Your task to perform on an android device: open device folders in google photos Image 0: 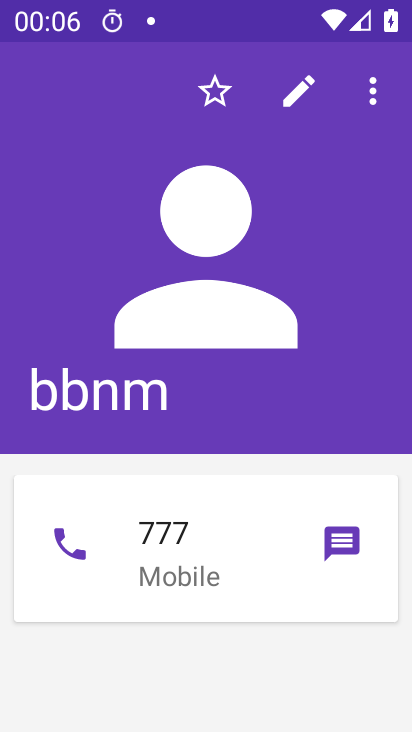
Step 0: press home button
Your task to perform on an android device: open device folders in google photos Image 1: 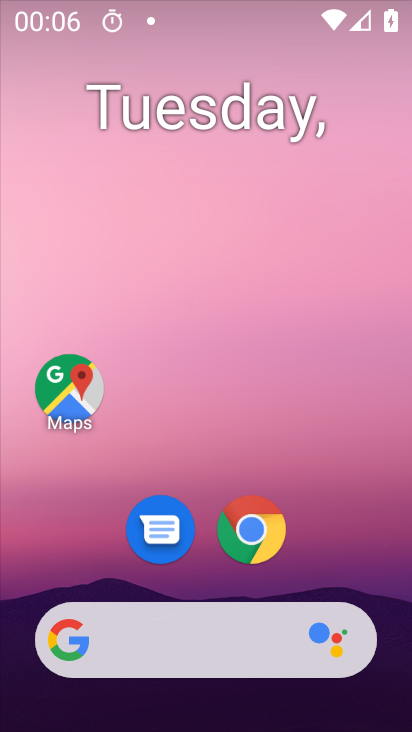
Step 1: drag from (408, 583) to (408, 64)
Your task to perform on an android device: open device folders in google photos Image 2: 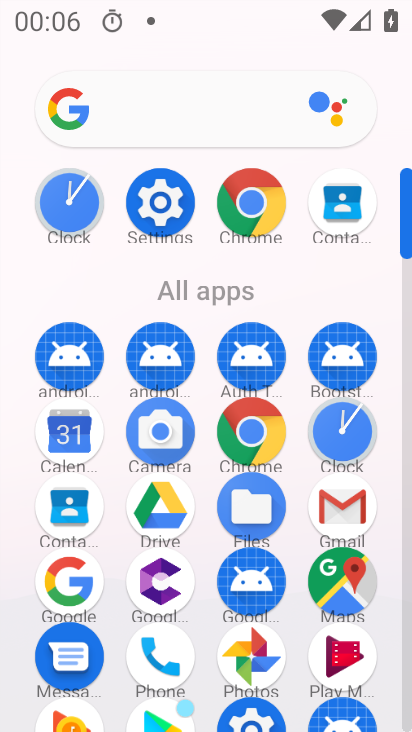
Step 2: click (243, 666)
Your task to perform on an android device: open device folders in google photos Image 3: 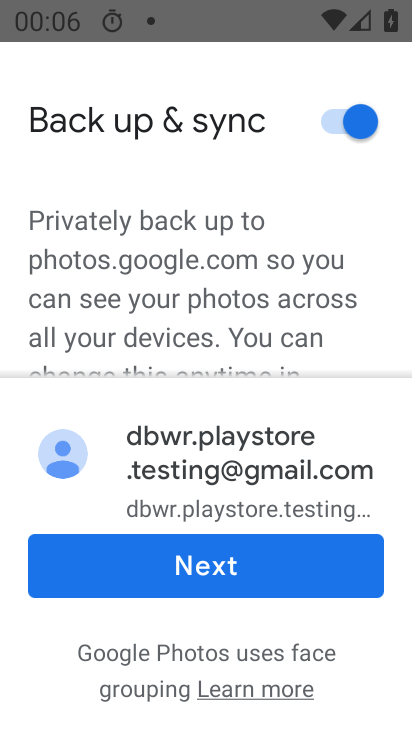
Step 3: click (227, 580)
Your task to perform on an android device: open device folders in google photos Image 4: 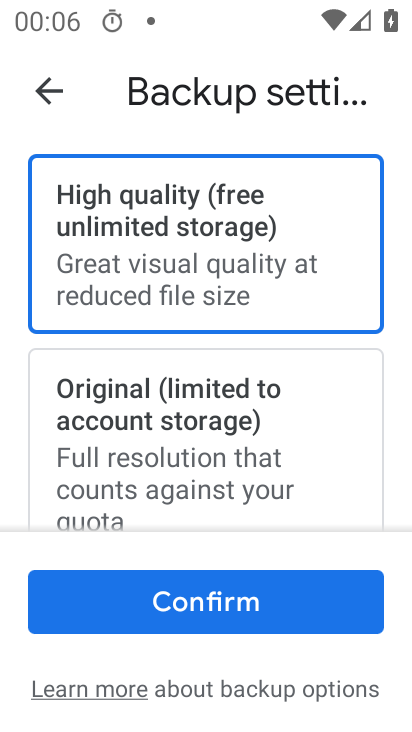
Step 4: click (227, 574)
Your task to perform on an android device: open device folders in google photos Image 5: 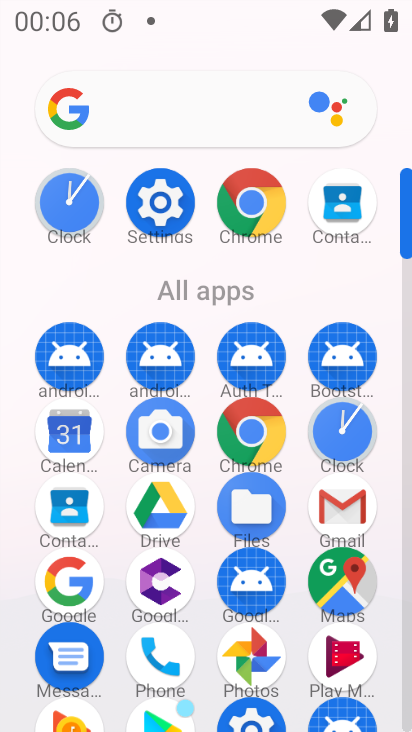
Step 5: click (252, 640)
Your task to perform on an android device: open device folders in google photos Image 6: 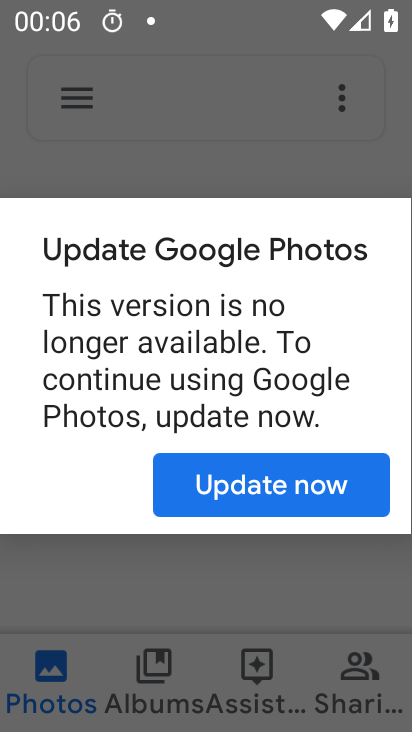
Step 6: click (225, 503)
Your task to perform on an android device: open device folders in google photos Image 7: 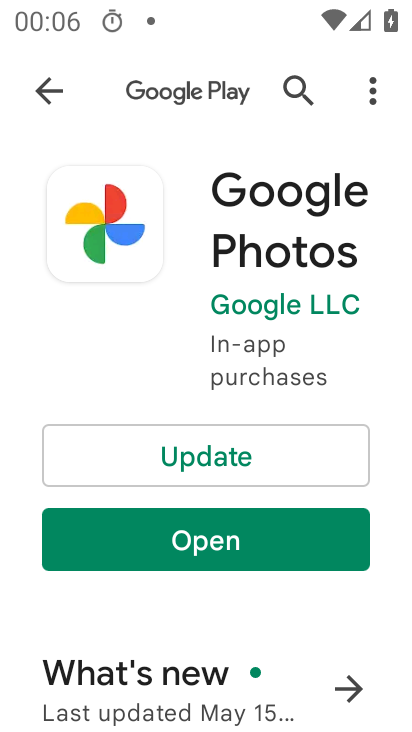
Step 7: click (241, 456)
Your task to perform on an android device: open device folders in google photos Image 8: 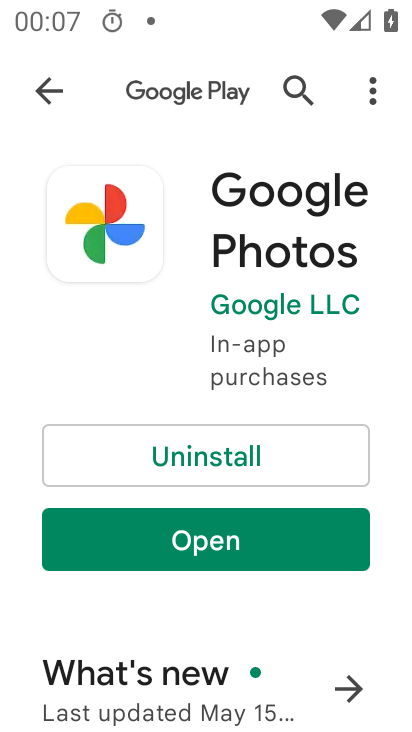
Step 8: click (250, 527)
Your task to perform on an android device: open device folders in google photos Image 9: 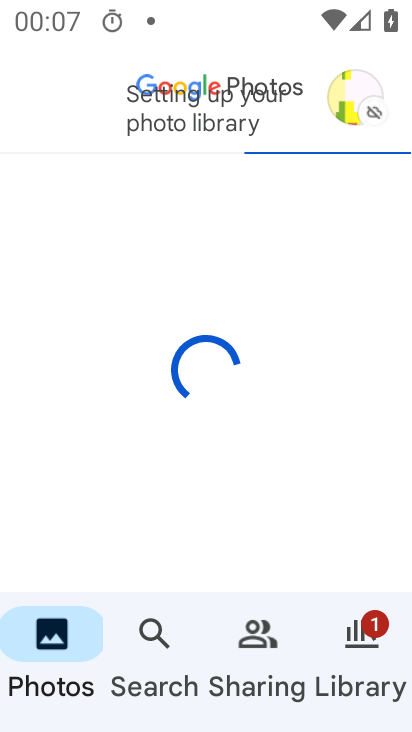
Step 9: task complete